Your task to perform on an android device: What is the news today? Image 0: 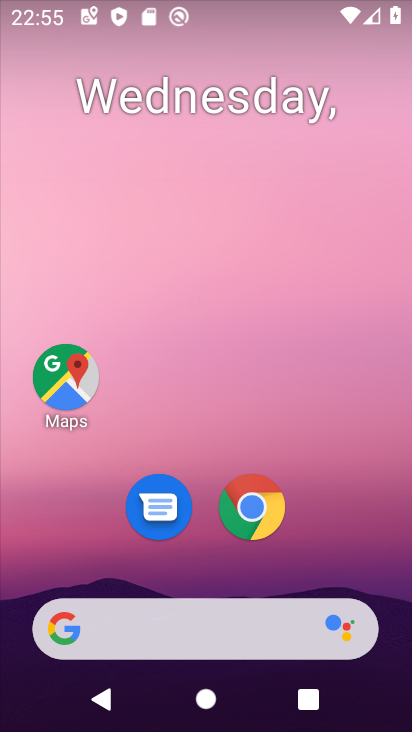
Step 0: drag from (304, 482) to (307, 291)
Your task to perform on an android device: What is the news today? Image 1: 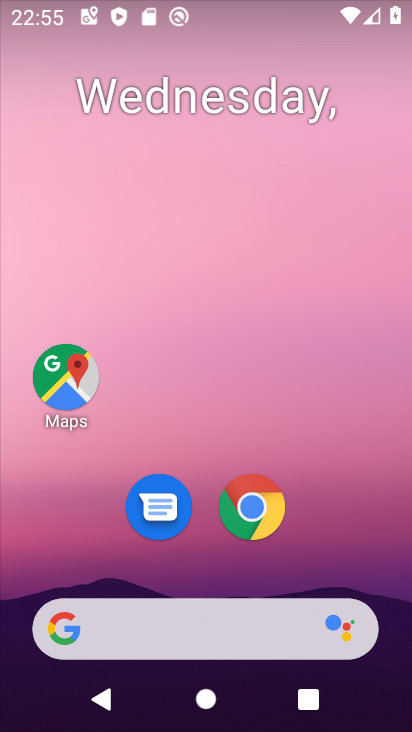
Step 1: drag from (282, 543) to (308, 218)
Your task to perform on an android device: What is the news today? Image 2: 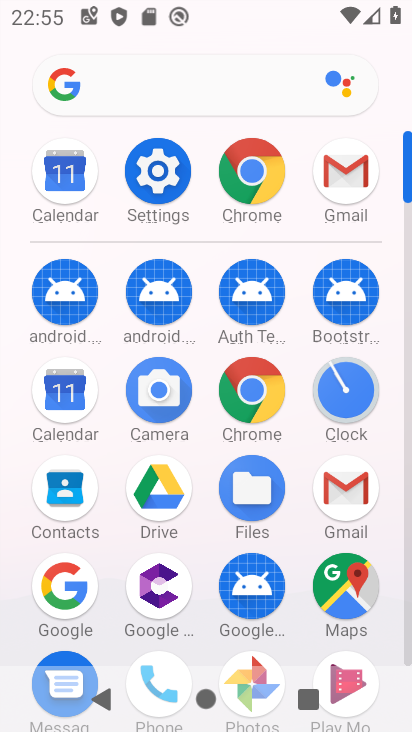
Step 2: click (229, 167)
Your task to perform on an android device: What is the news today? Image 3: 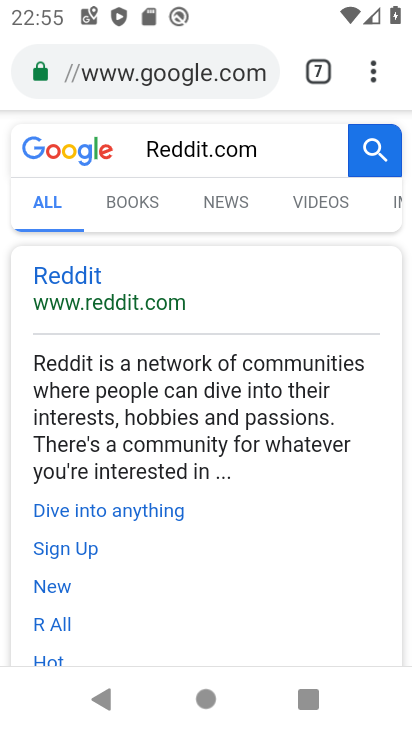
Step 3: click (355, 74)
Your task to perform on an android device: What is the news today? Image 4: 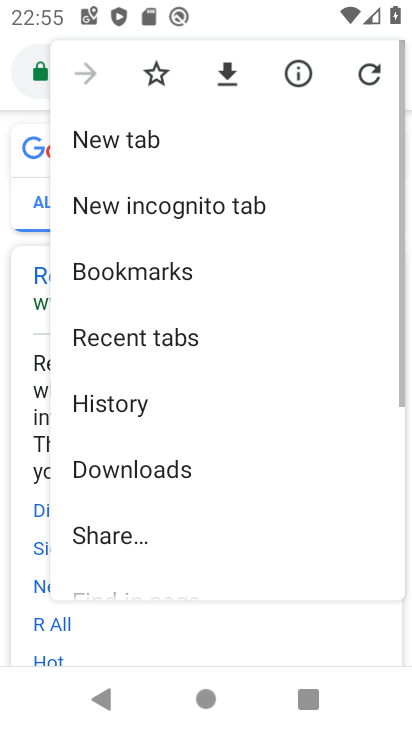
Step 4: click (134, 131)
Your task to perform on an android device: What is the news today? Image 5: 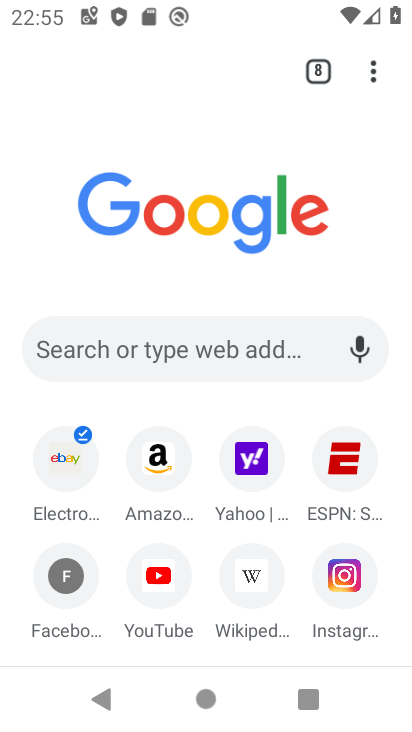
Step 5: click (208, 321)
Your task to perform on an android device: What is the news today? Image 6: 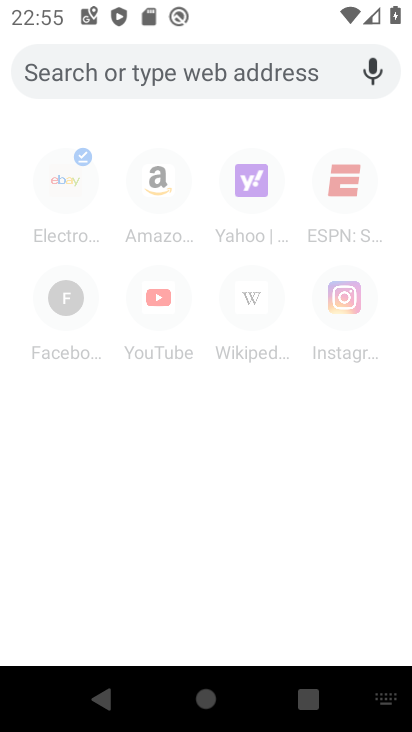
Step 6: type "What is the news today?"
Your task to perform on an android device: What is the news today? Image 7: 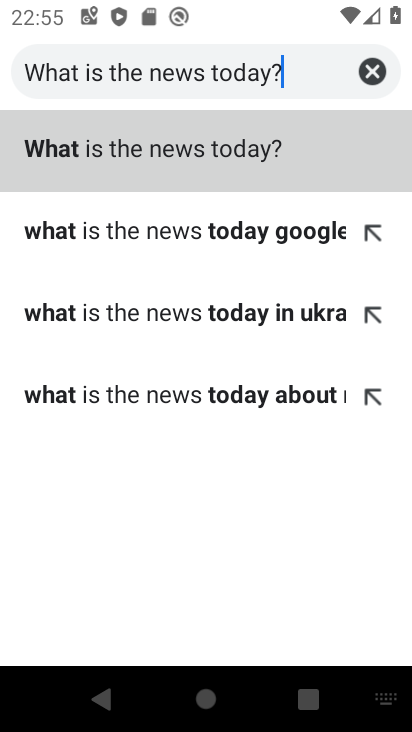
Step 7: click (166, 154)
Your task to perform on an android device: What is the news today? Image 8: 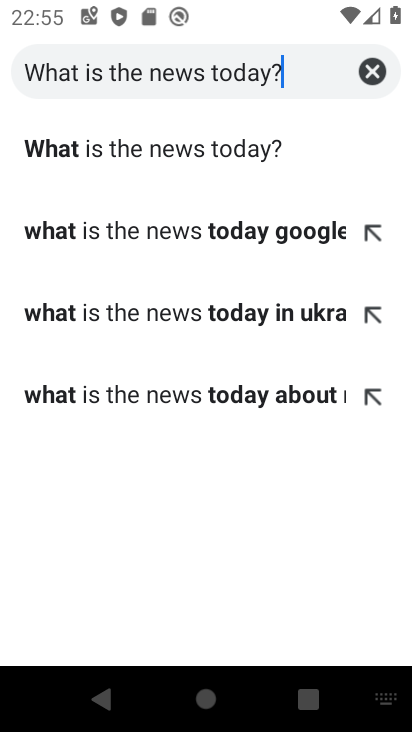
Step 8: click (158, 147)
Your task to perform on an android device: What is the news today? Image 9: 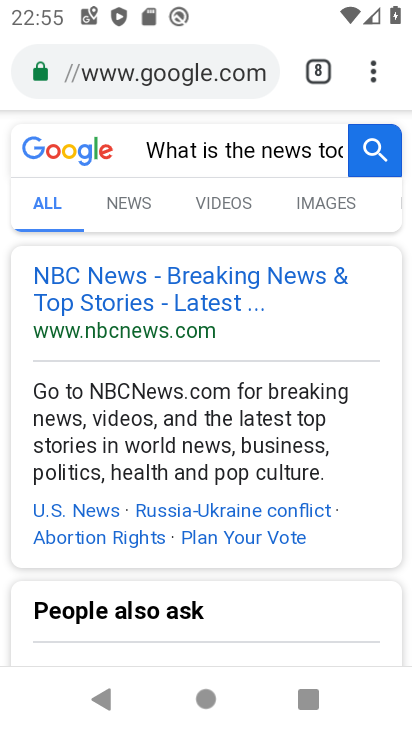
Step 9: task complete